Your task to perform on an android device: Is it going to rain this weekend? Image 0: 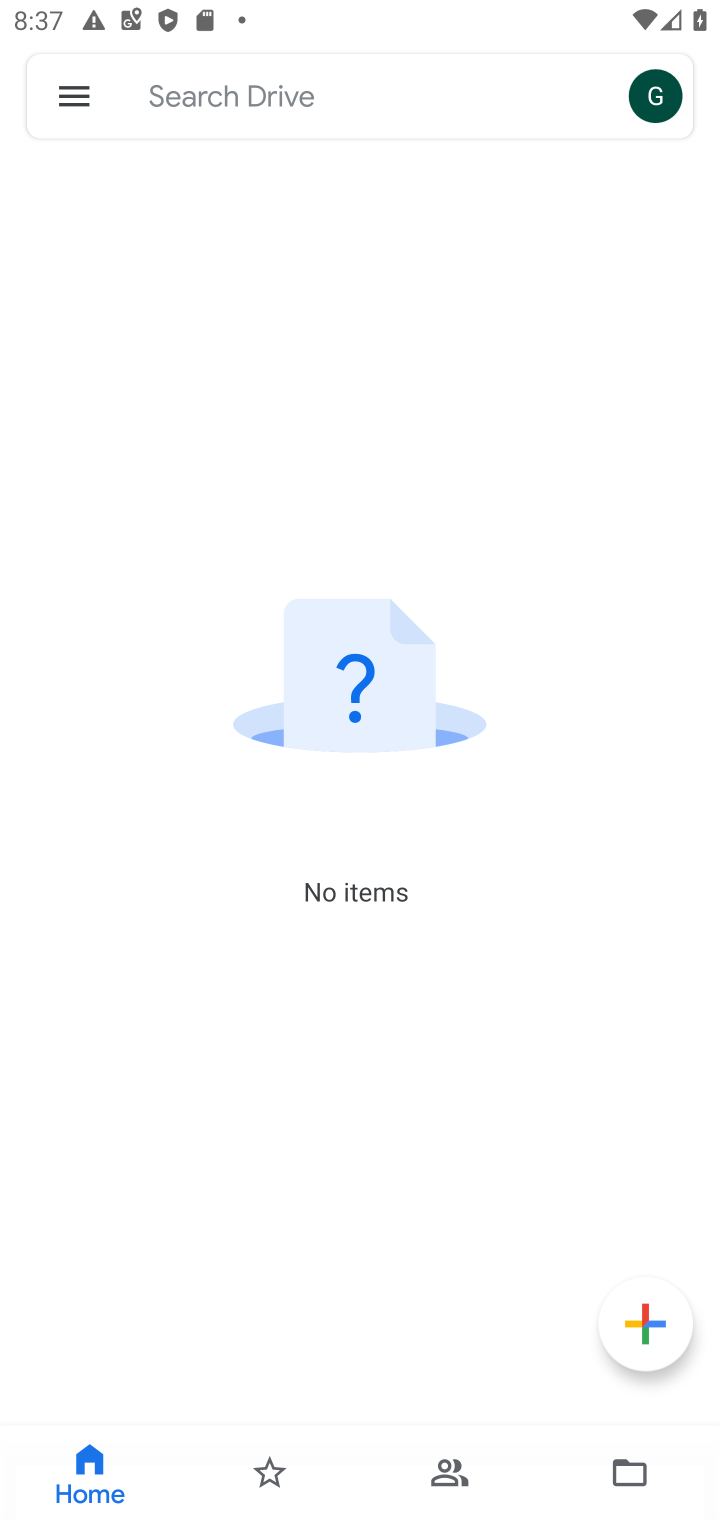
Step 0: press back button
Your task to perform on an android device: Is it going to rain this weekend? Image 1: 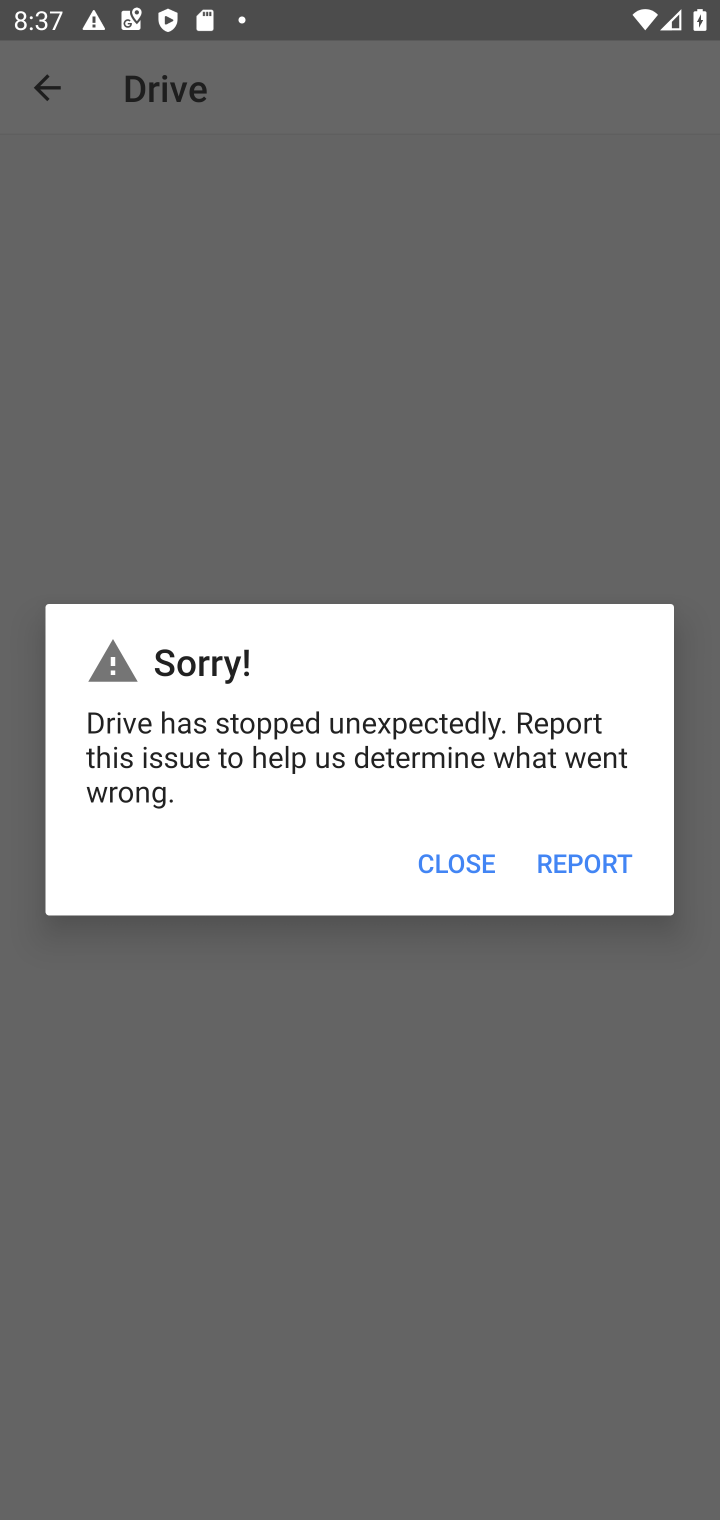
Step 1: press home button
Your task to perform on an android device: Is it going to rain this weekend? Image 2: 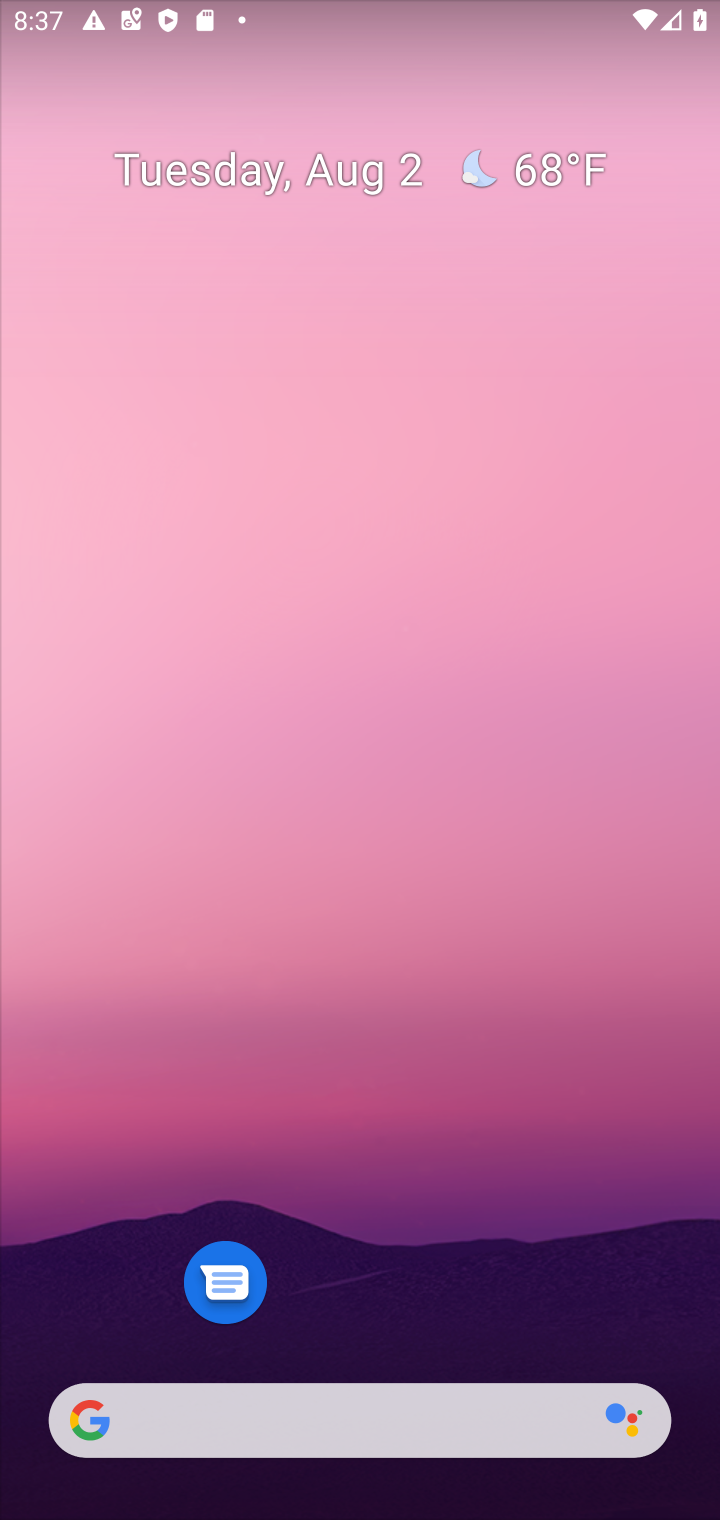
Step 2: drag from (425, 1326) to (271, 79)
Your task to perform on an android device: Is it going to rain this weekend? Image 3: 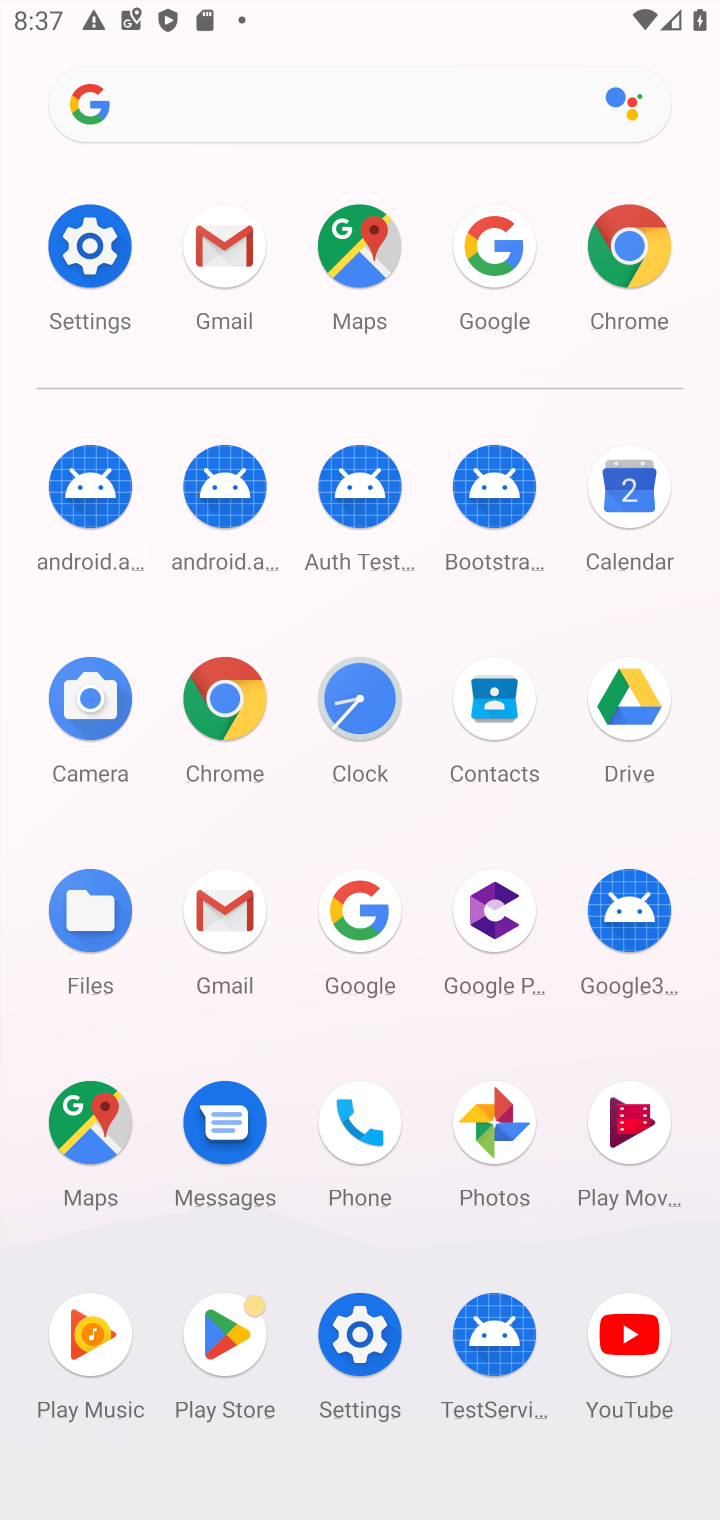
Step 3: click (384, 918)
Your task to perform on an android device: Is it going to rain this weekend? Image 4: 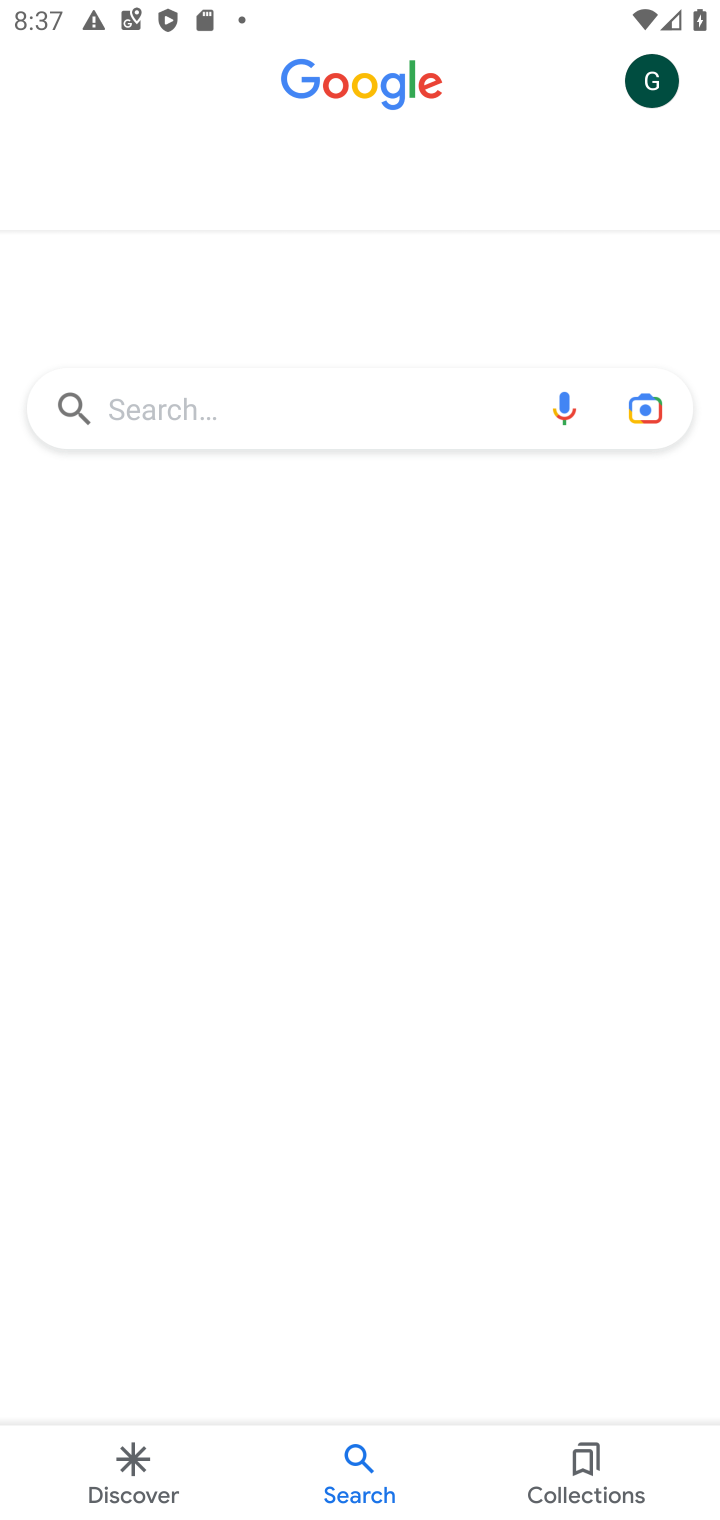
Step 4: click (272, 407)
Your task to perform on an android device: Is it going to rain this weekend? Image 5: 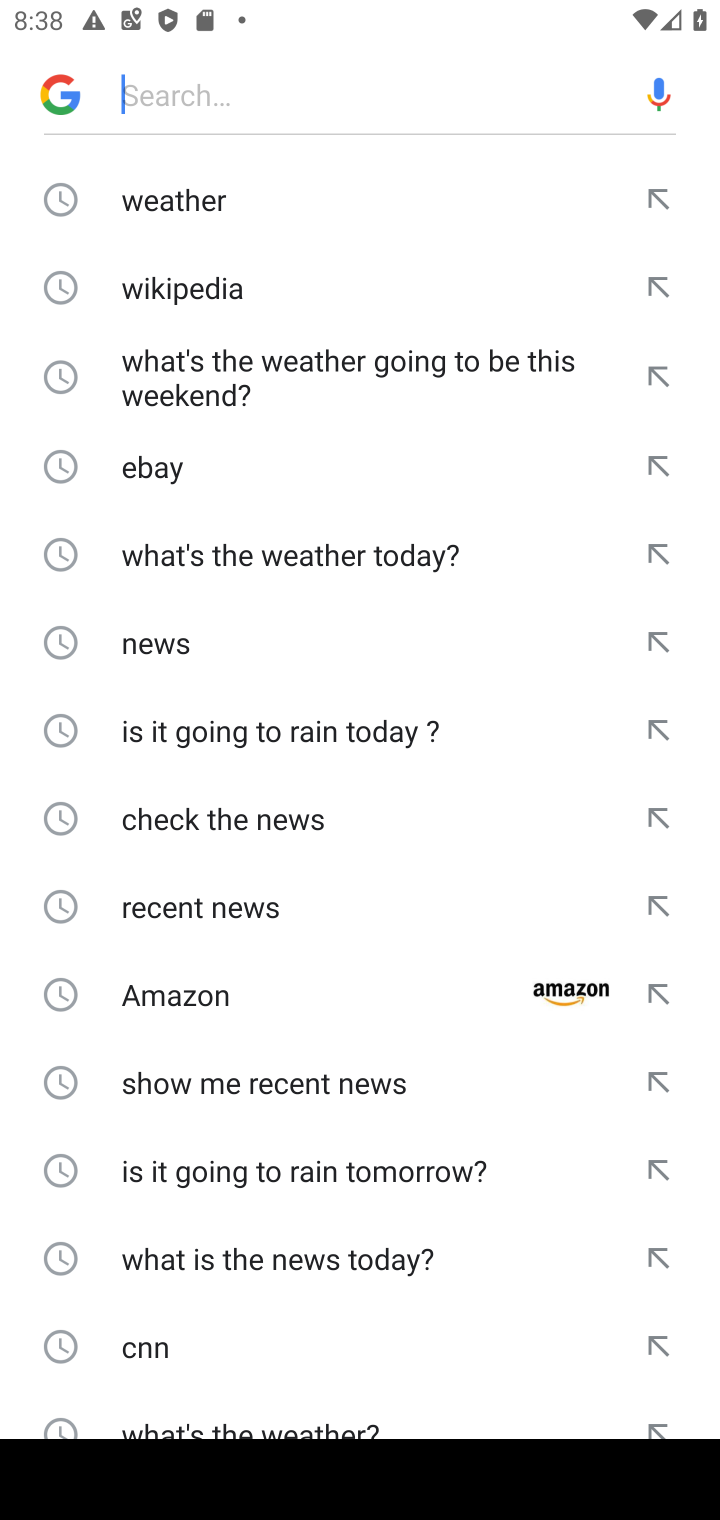
Step 5: click (167, 206)
Your task to perform on an android device: Is it going to rain this weekend? Image 6: 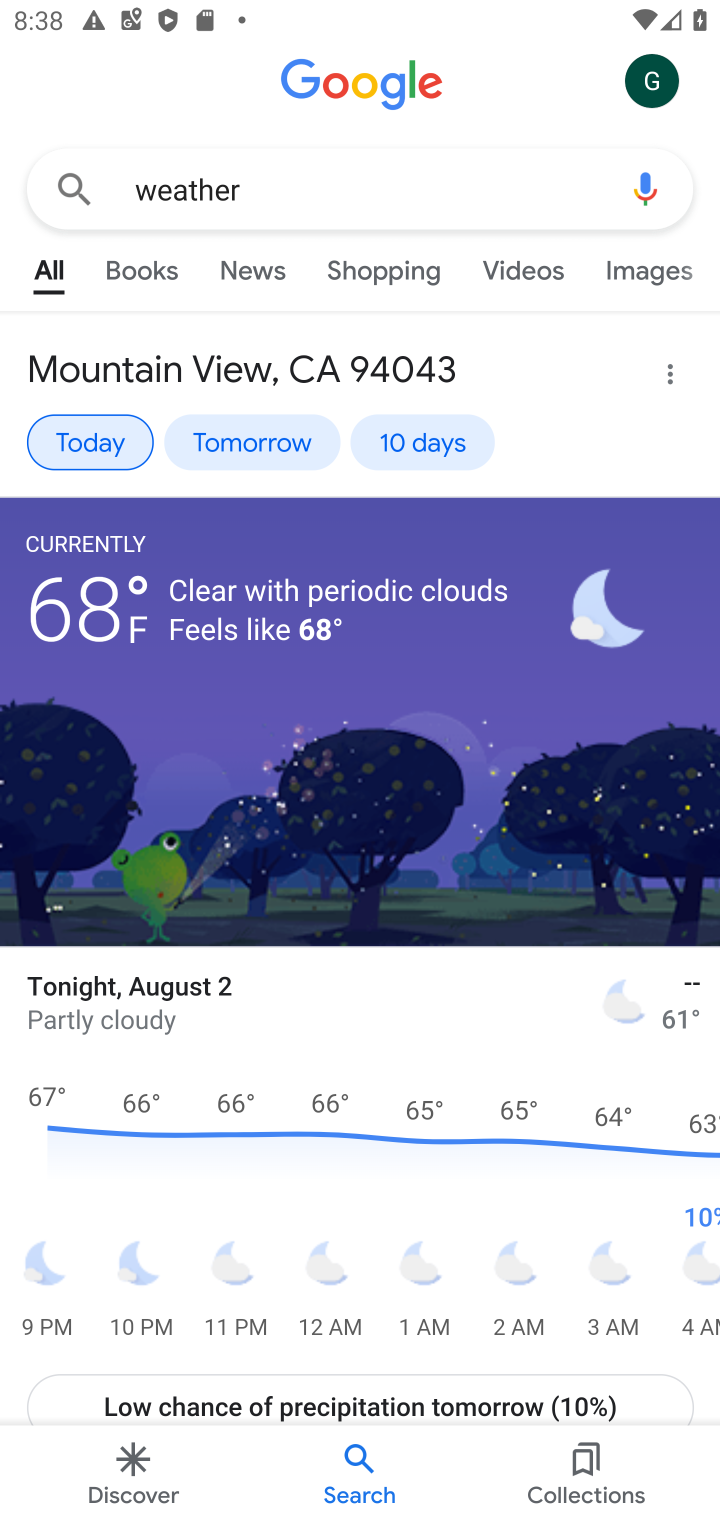
Step 6: click (400, 421)
Your task to perform on an android device: Is it going to rain this weekend? Image 7: 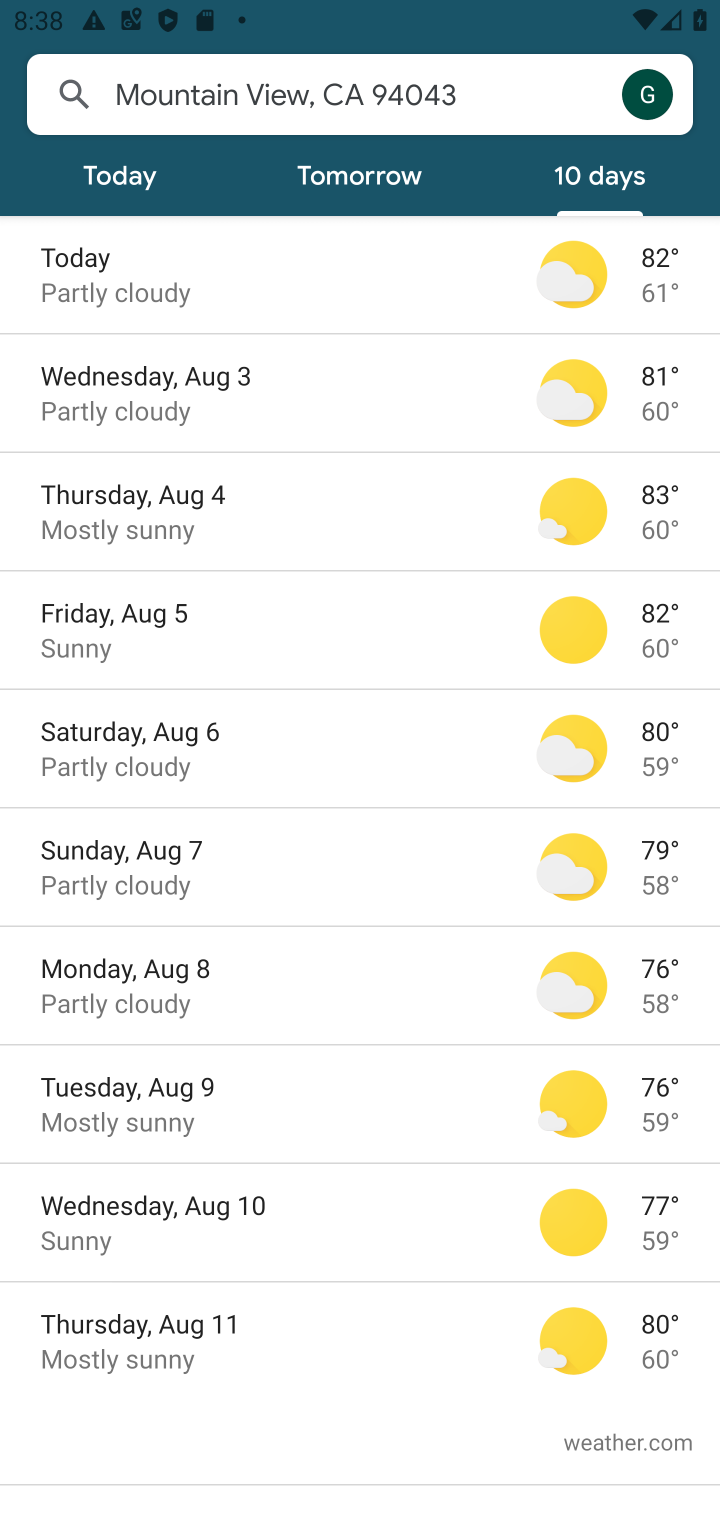
Step 7: task complete